Your task to perform on an android device: set an alarm Image 0: 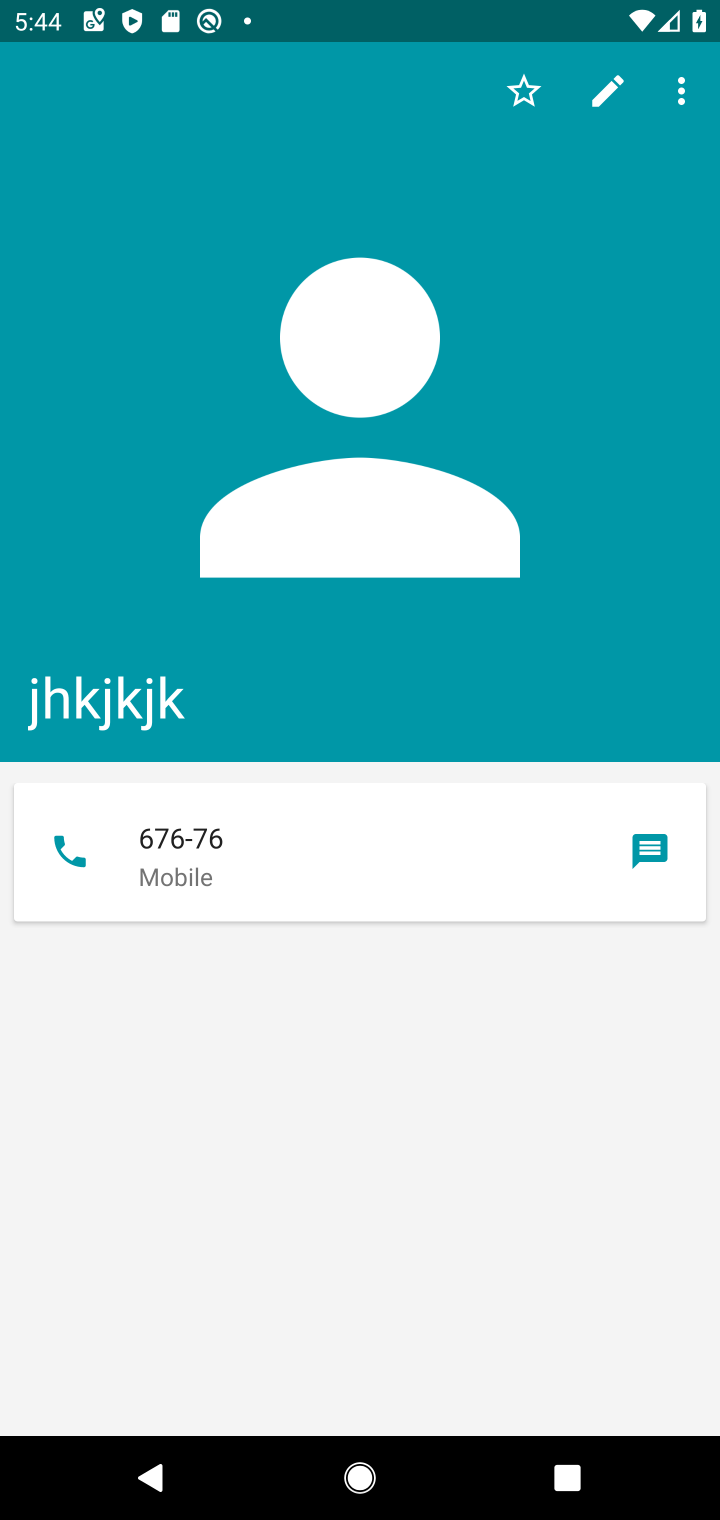
Step 0: press home button
Your task to perform on an android device: set an alarm Image 1: 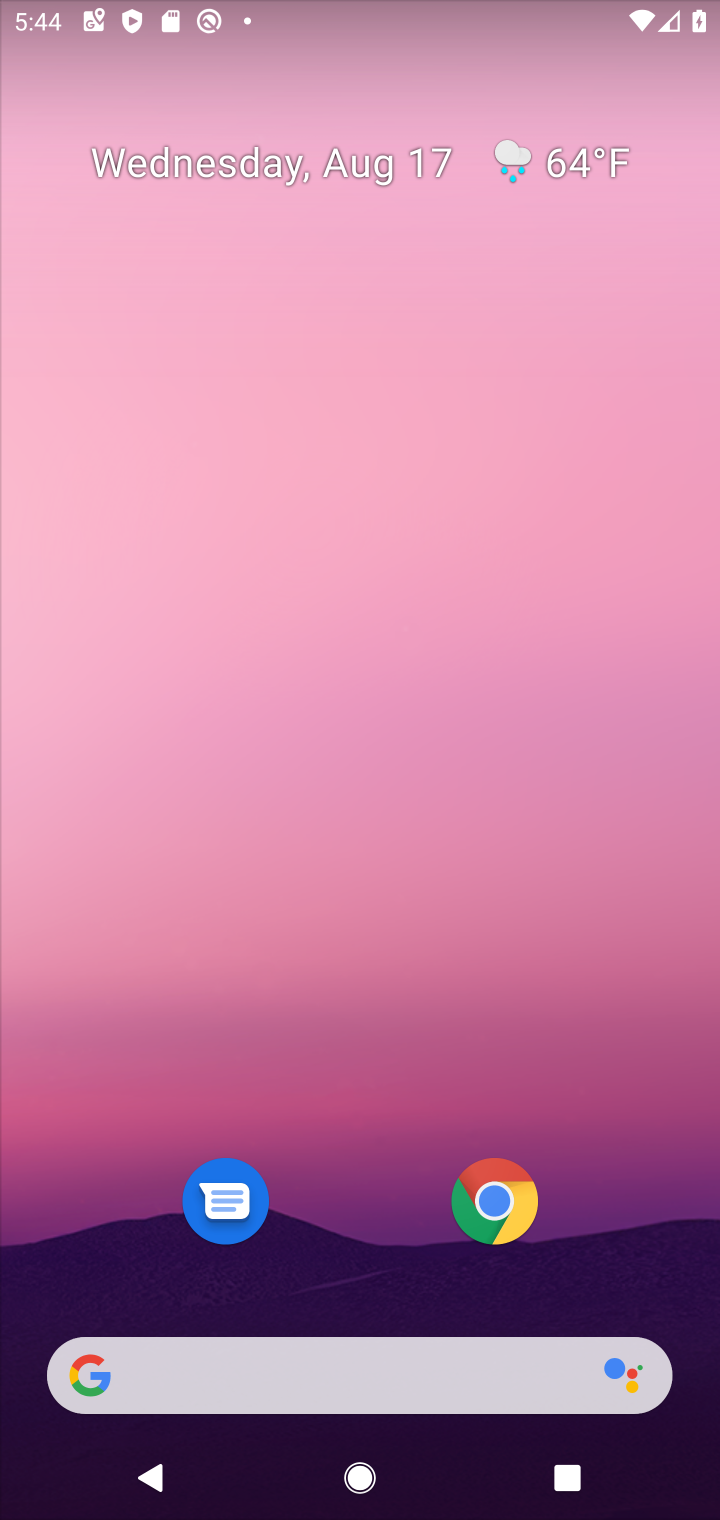
Step 1: drag from (303, 450) to (322, 294)
Your task to perform on an android device: set an alarm Image 2: 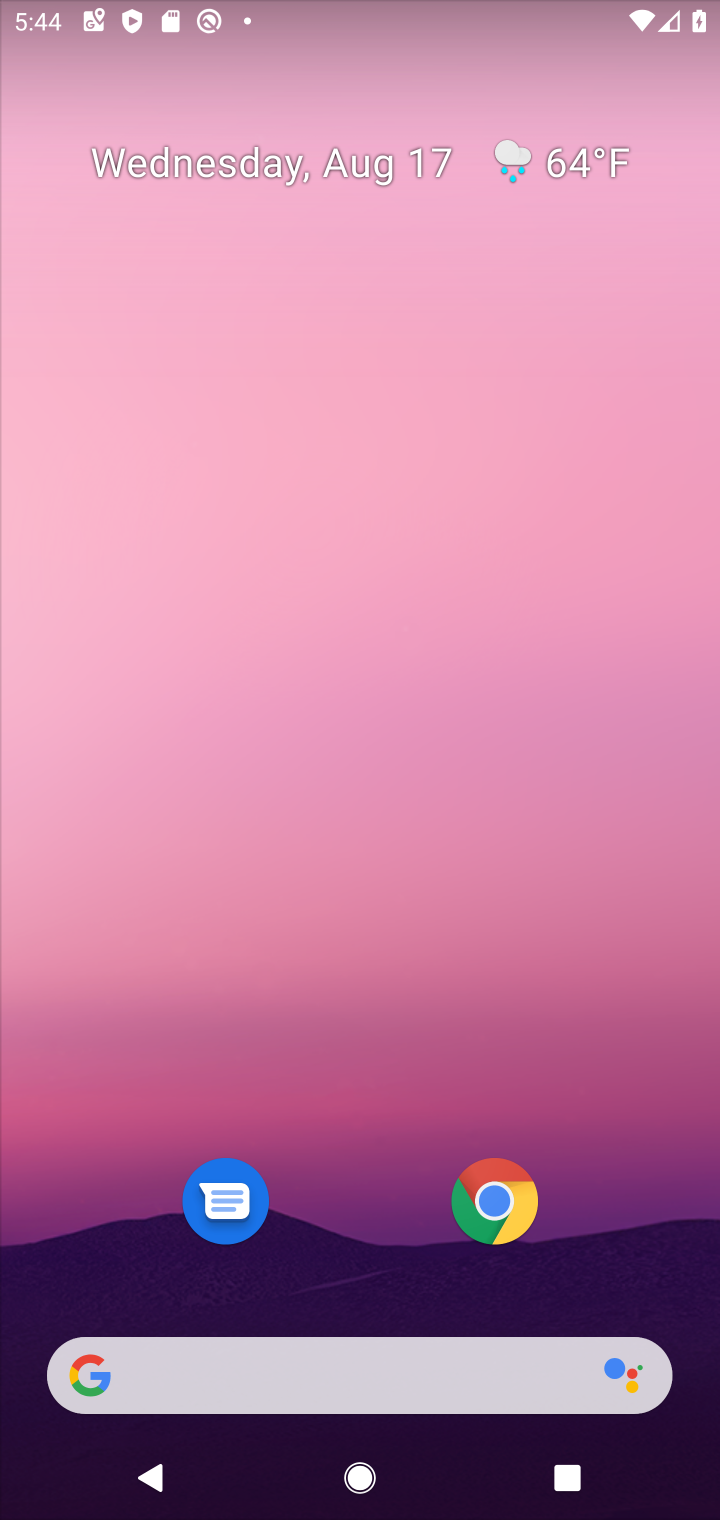
Step 2: drag from (388, 1237) to (357, 62)
Your task to perform on an android device: set an alarm Image 3: 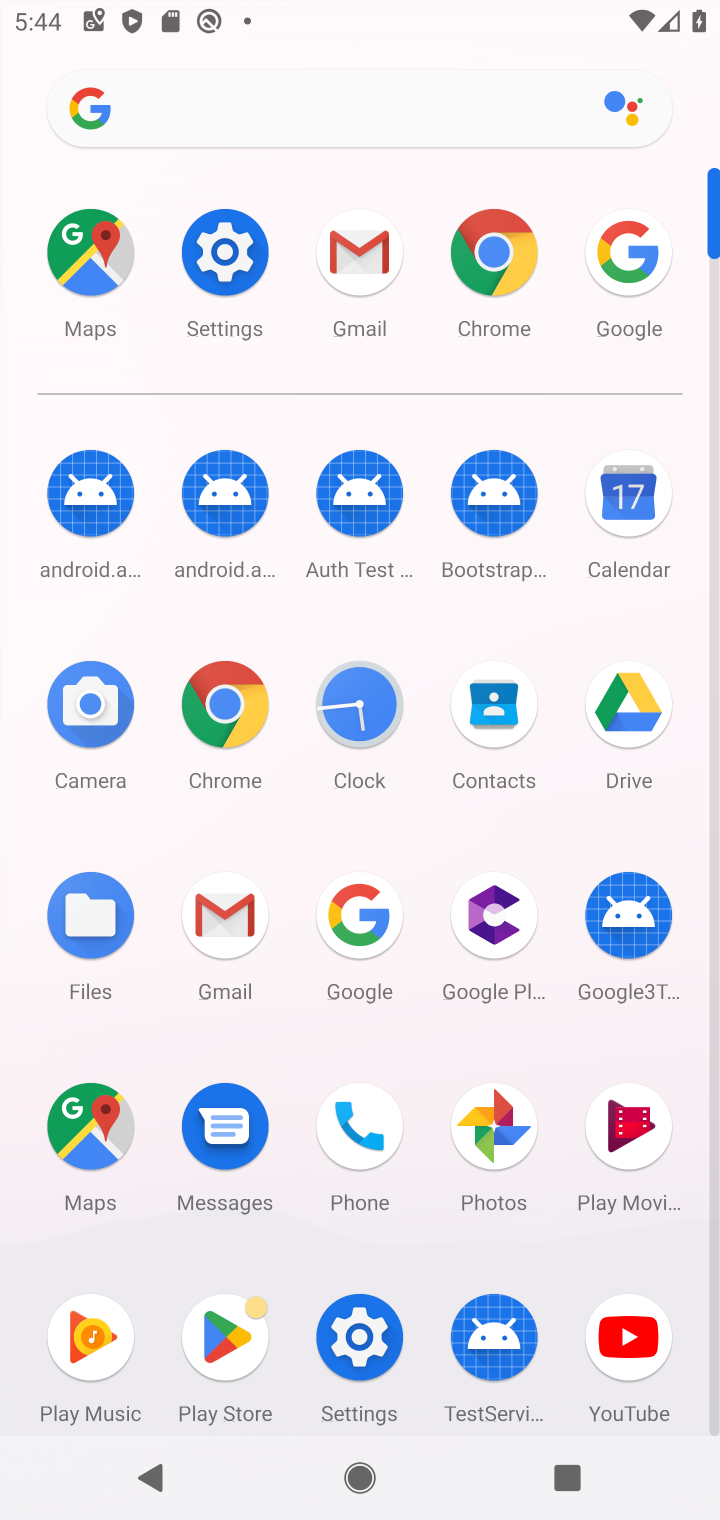
Step 3: click (339, 726)
Your task to perform on an android device: set an alarm Image 4: 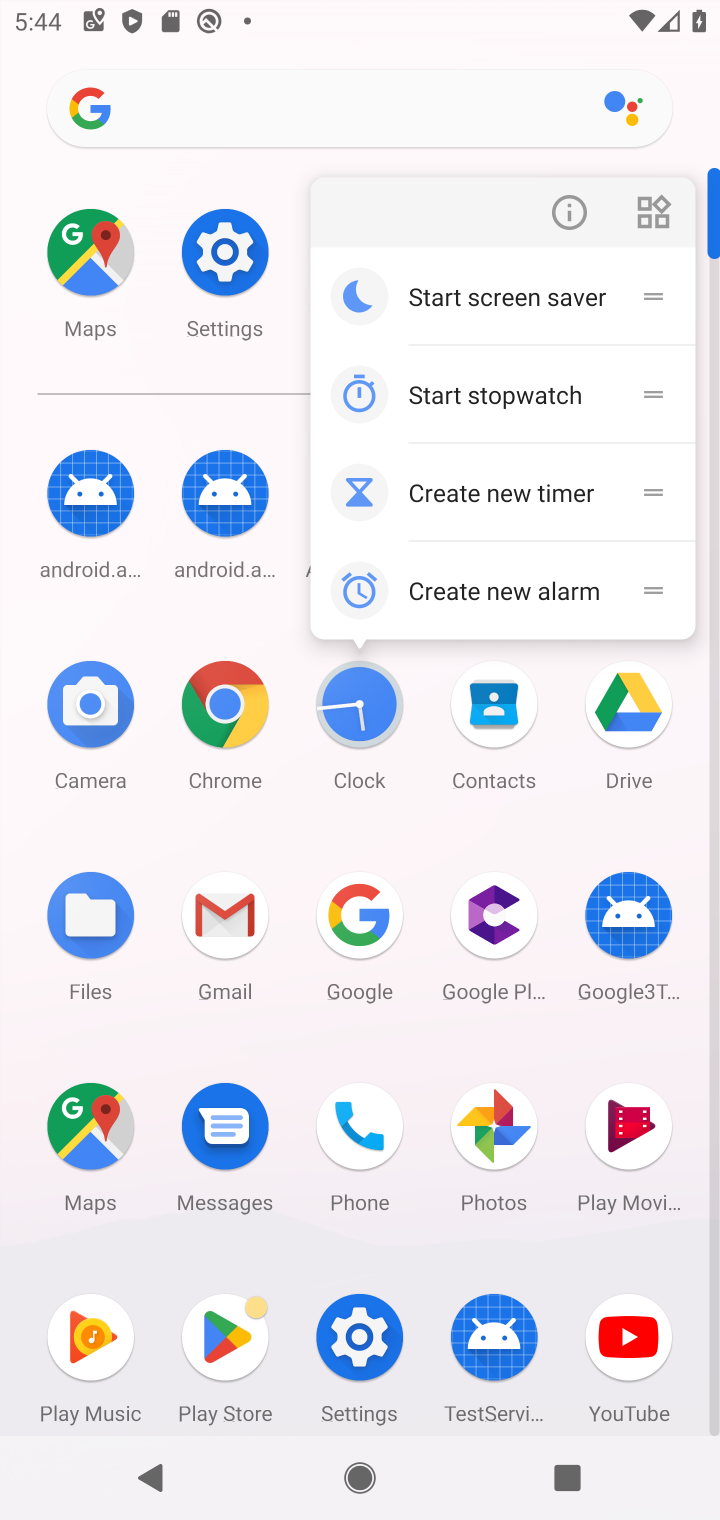
Step 4: click (355, 715)
Your task to perform on an android device: set an alarm Image 5: 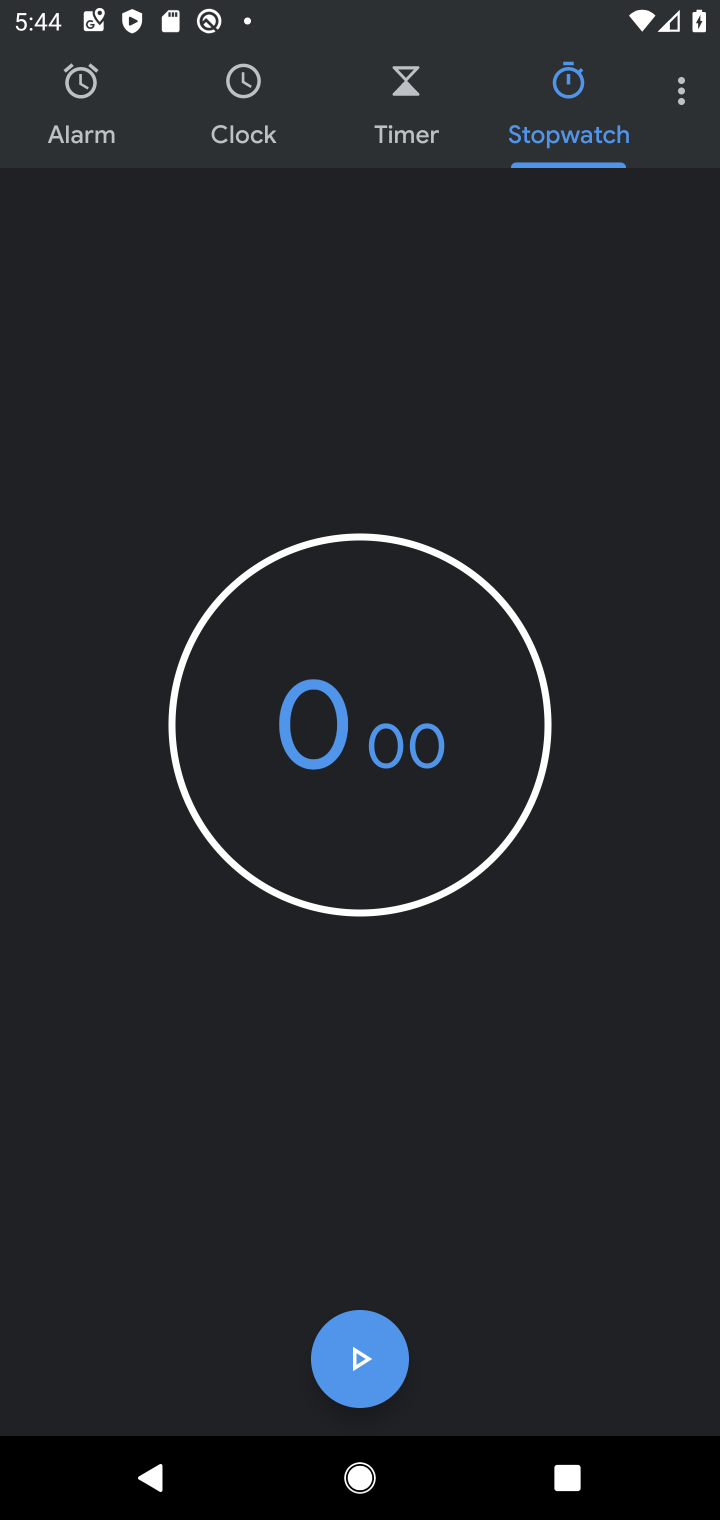
Step 5: click (105, 115)
Your task to perform on an android device: set an alarm Image 6: 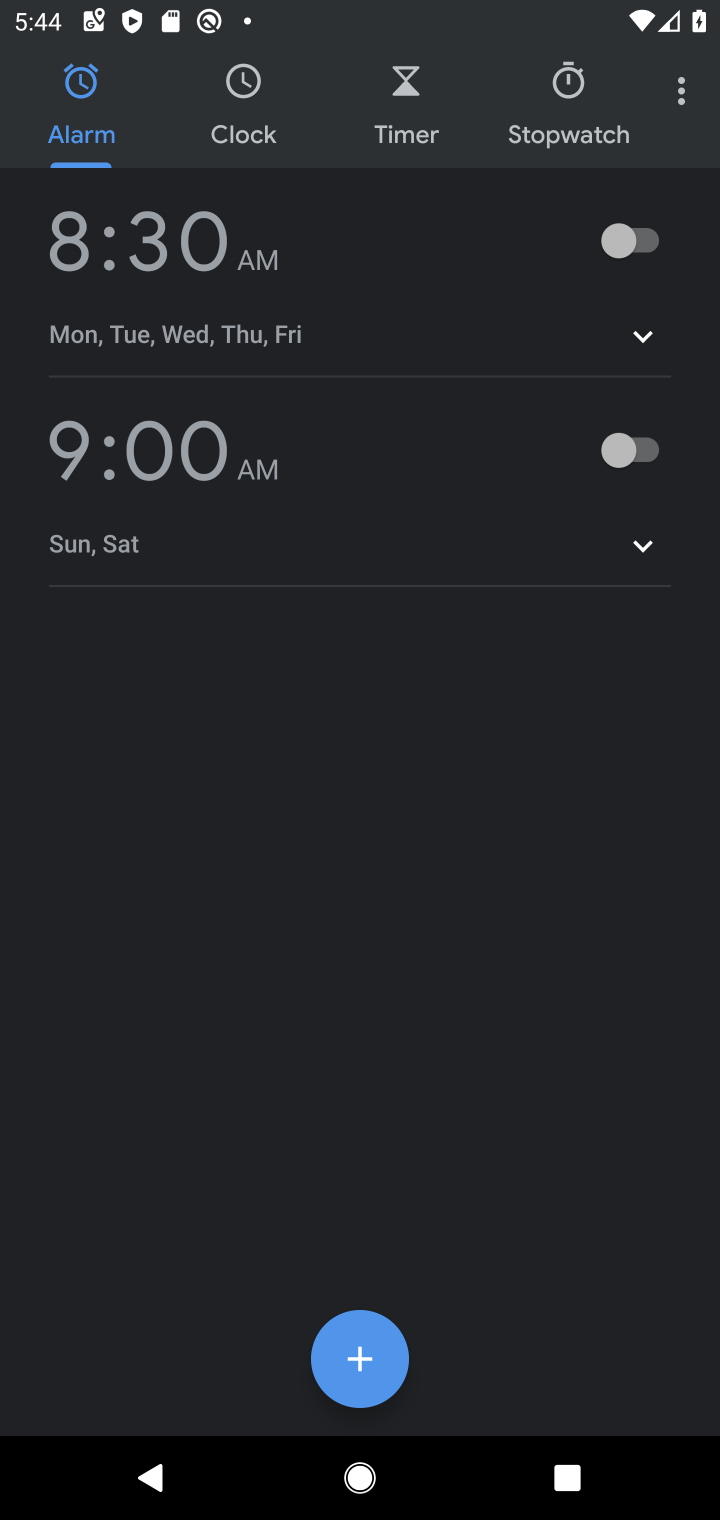
Step 6: task complete